Your task to perform on an android device: set default search engine in the chrome app Image 0: 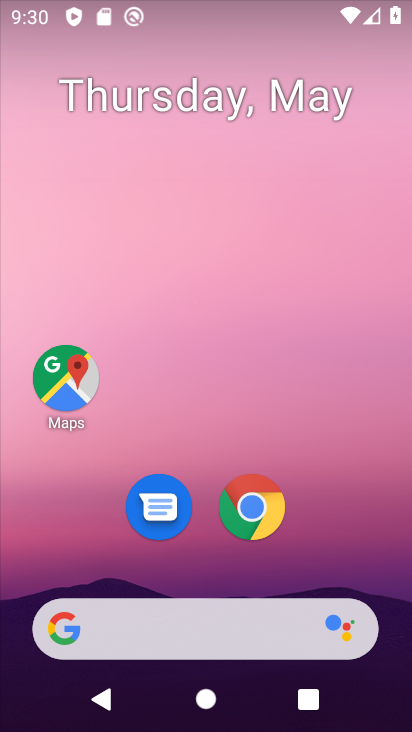
Step 0: click (255, 487)
Your task to perform on an android device: set default search engine in the chrome app Image 1: 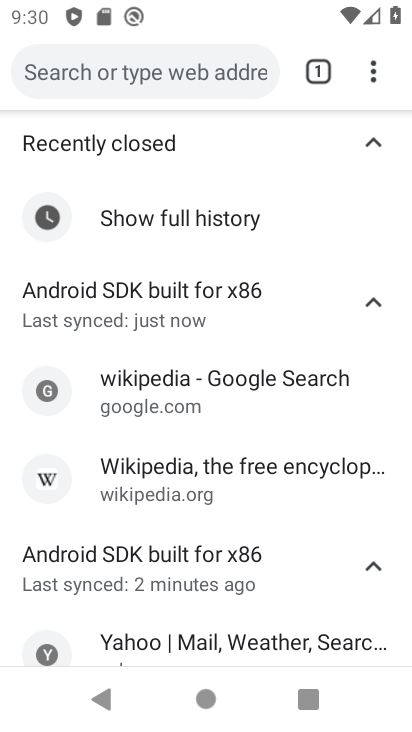
Step 1: click (374, 88)
Your task to perform on an android device: set default search engine in the chrome app Image 2: 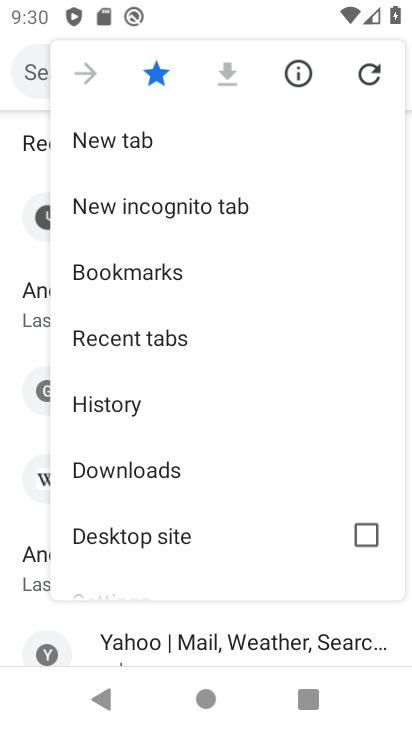
Step 2: drag from (220, 579) to (189, 118)
Your task to perform on an android device: set default search engine in the chrome app Image 3: 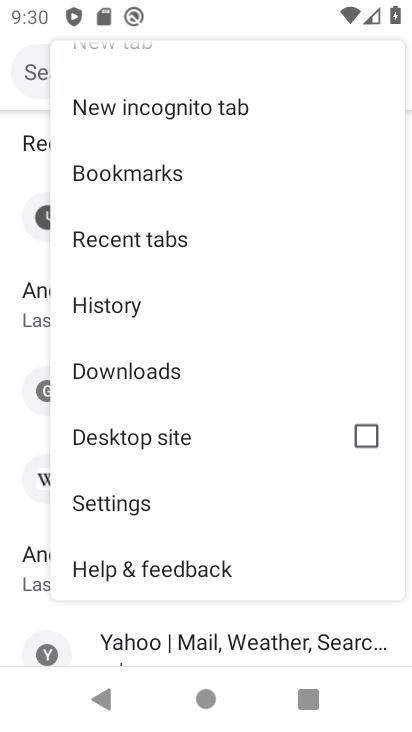
Step 3: click (141, 516)
Your task to perform on an android device: set default search engine in the chrome app Image 4: 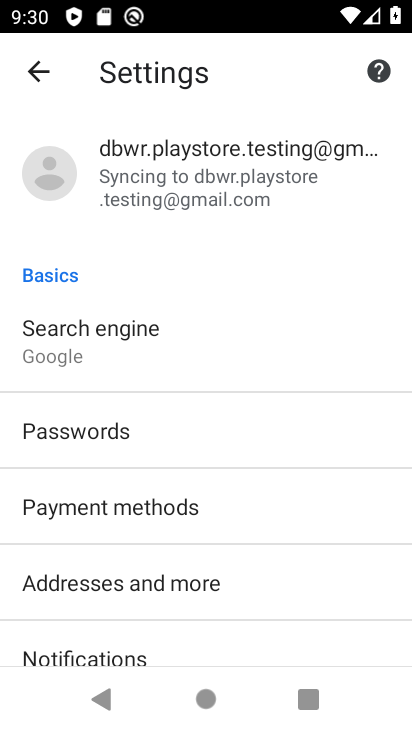
Step 4: click (140, 374)
Your task to perform on an android device: set default search engine in the chrome app Image 5: 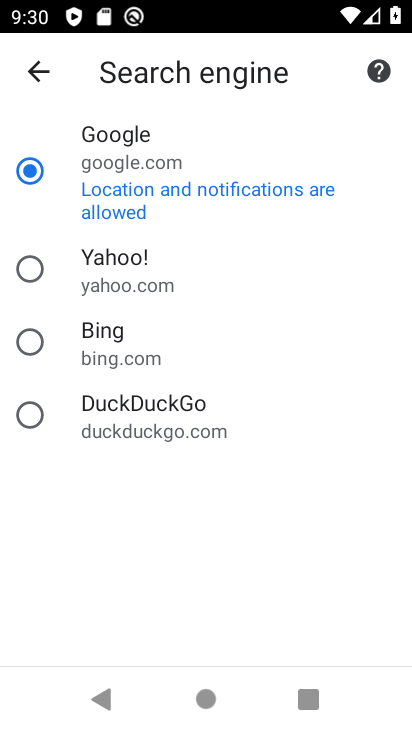
Step 5: click (138, 348)
Your task to perform on an android device: set default search engine in the chrome app Image 6: 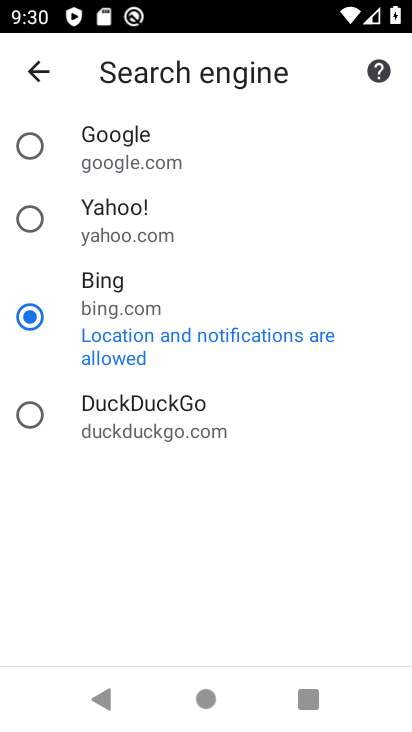
Step 6: task complete